Your task to perform on an android device: move a message to another label in the gmail app Image 0: 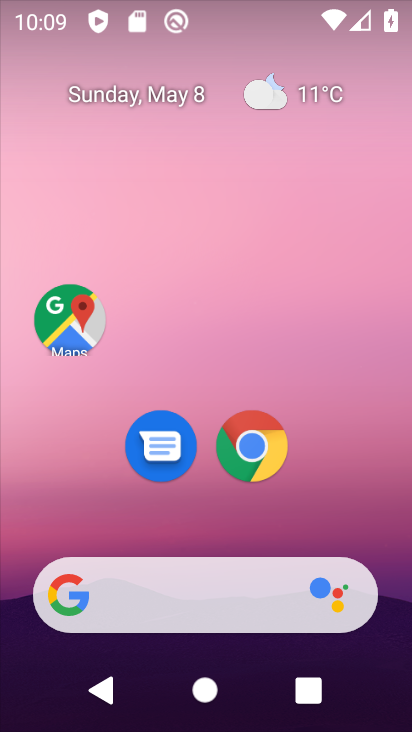
Step 0: drag from (371, 548) to (296, 16)
Your task to perform on an android device: move a message to another label in the gmail app Image 1: 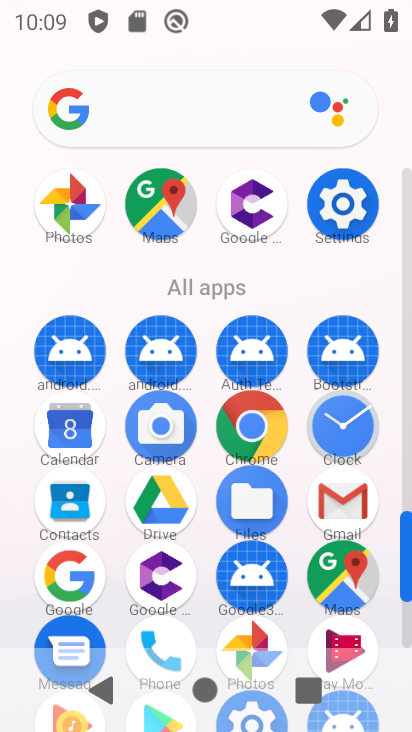
Step 1: click (352, 491)
Your task to perform on an android device: move a message to another label in the gmail app Image 2: 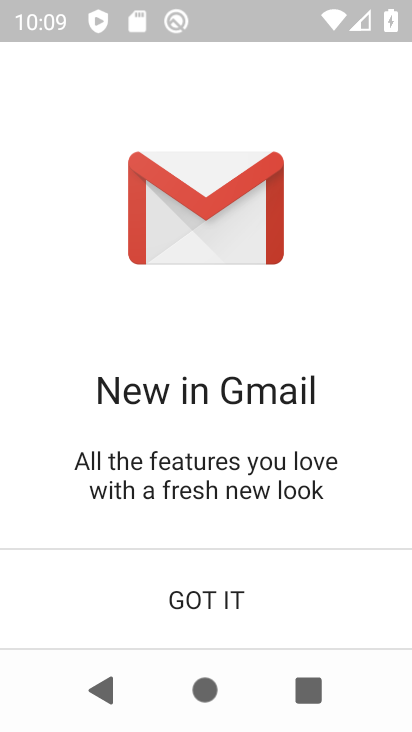
Step 2: click (181, 598)
Your task to perform on an android device: move a message to another label in the gmail app Image 3: 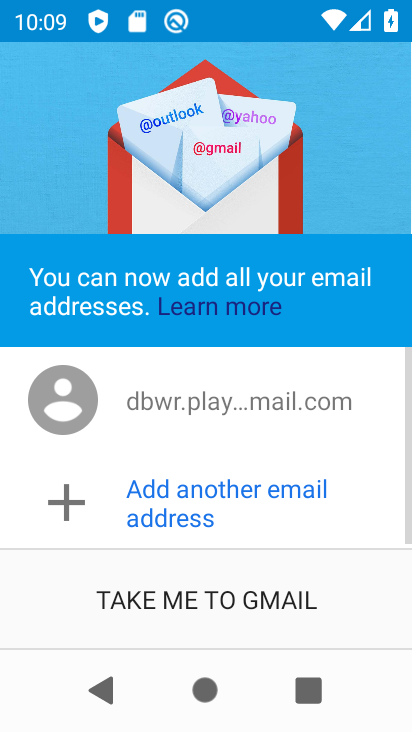
Step 3: click (265, 597)
Your task to perform on an android device: move a message to another label in the gmail app Image 4: 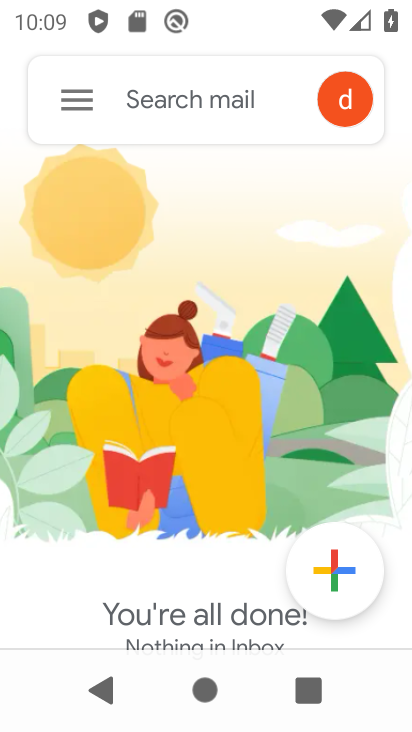
Step 4: click (73, 102)
Your task to perform on an android device: move a message to another label in the gmail app Image 5: 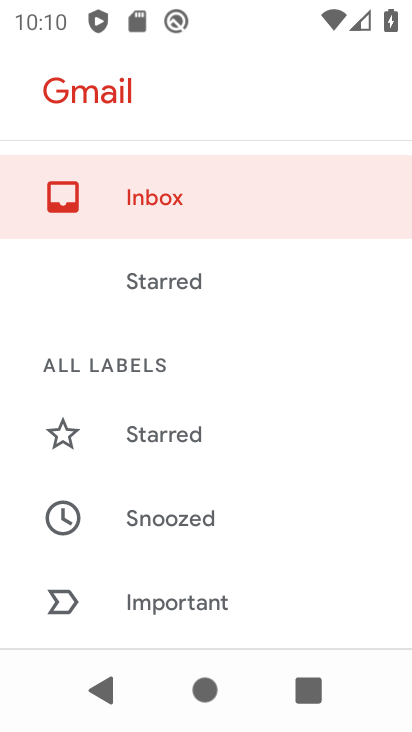
Step 5: drag from (254, 442) to (230, 0)
Your task to perform on an android device: move a message to another label in the gmail app Image 6: 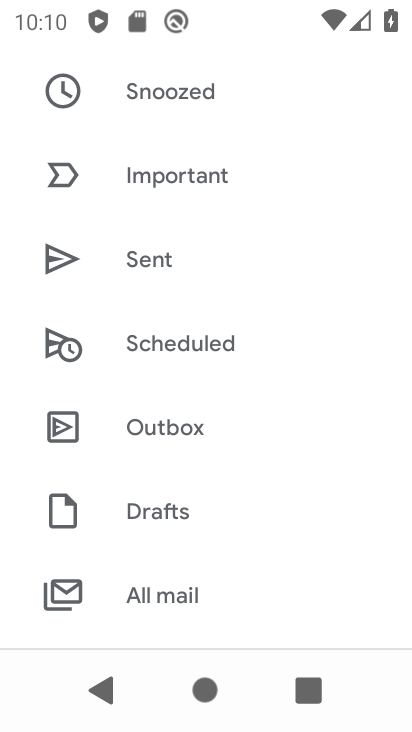
Step 6: click (197, 588)
Your task to perform on an android device: move a message to another label in the gmail app Image 7: 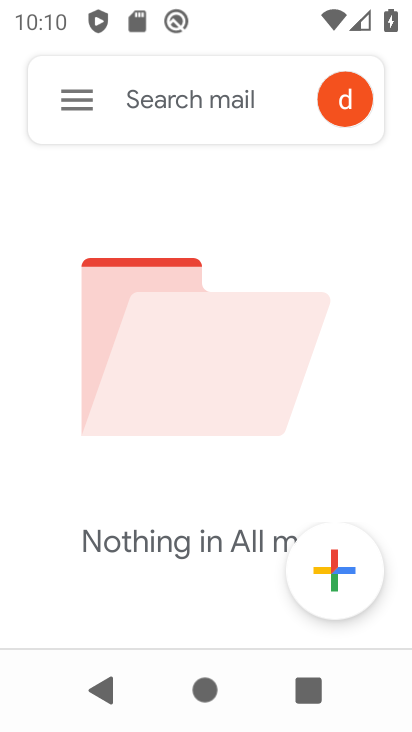
Step 7: task complete